Your task to perform on an android device: turn off location history Image 0: 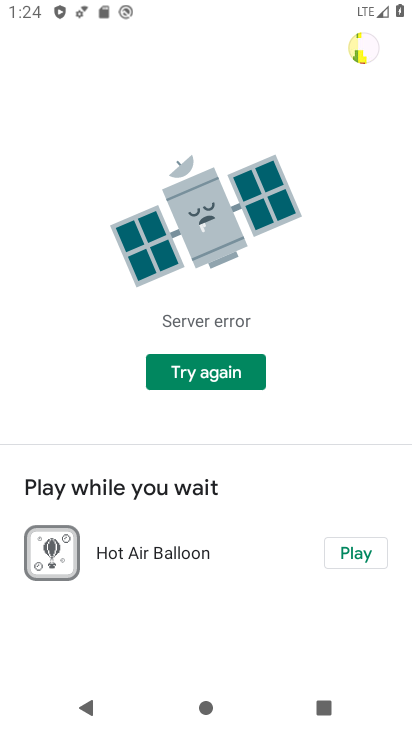
Step 0: press home button
Your task to perform on an android device: turn off location history Image 1: 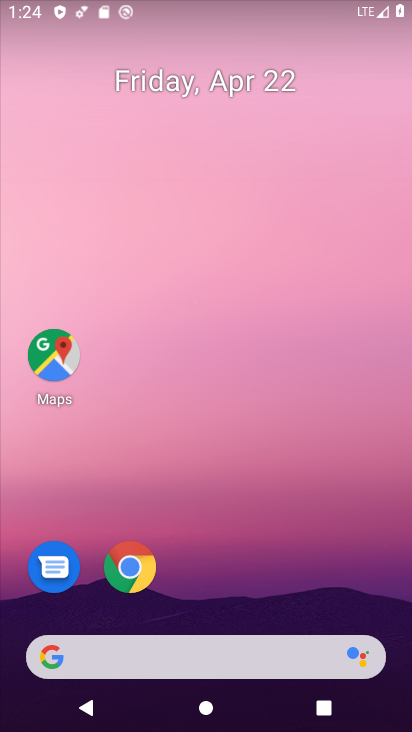
Step 1: drag from (322, 582) to (301, 150)
Your task to perform on an android device: turn off location history Image 2: 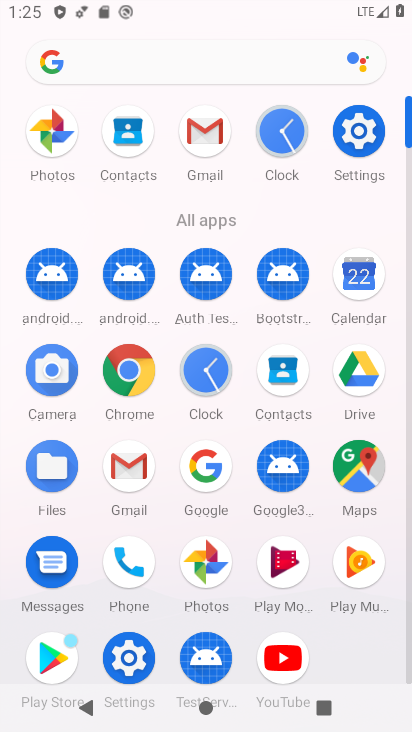
Step 2: click (130, 653)
Your task to perform on an android device: turn off location history Image 3: 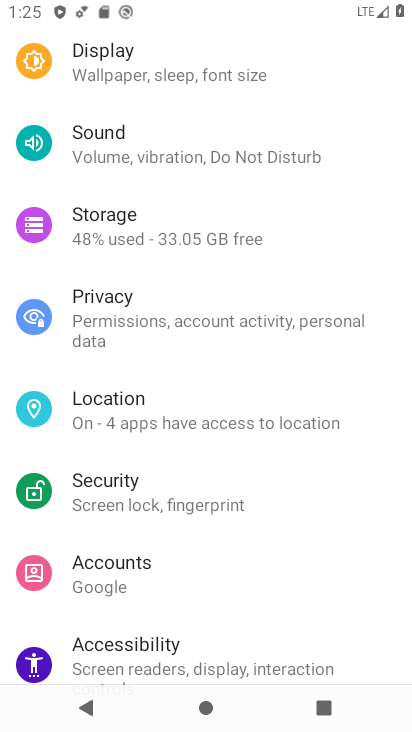
Step 3: click (149, 419)
Your task to perform on an android device: turn off location history Image 4: 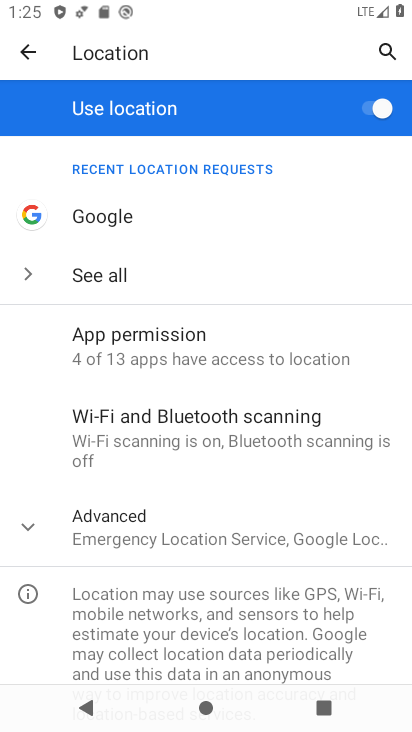
Step 4: click (68, 539)
Your task to perform on an android device: turn off location history Image 5: 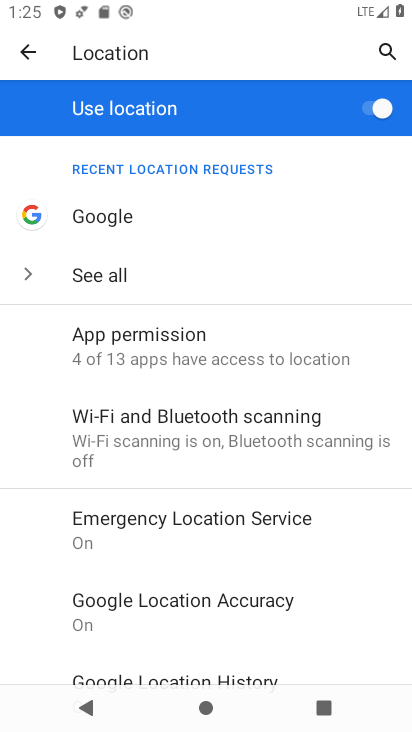
Step 5: drag from (168, 600) to (132, 372)
Your task to perform on an android device: turn off location history Image 6: 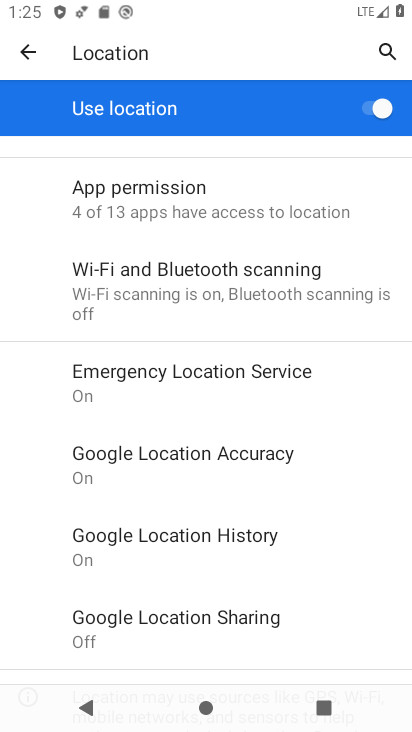
Step 6: click (155, 527)
Your task to perform on an android device: turn off location history Image 7: 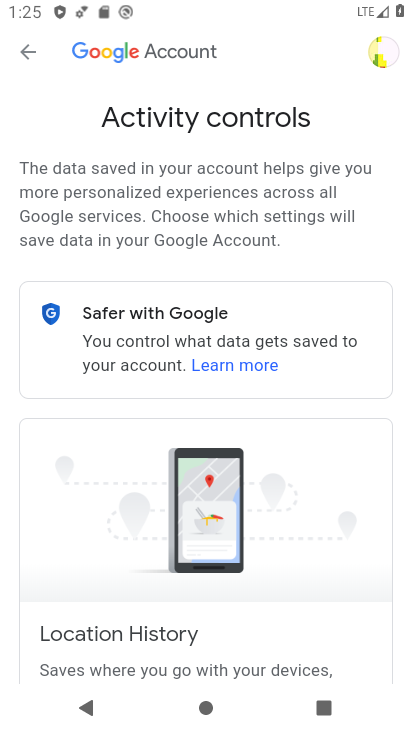
Step 7: drag from (292, 590) to (284, 306)
Your task to perform on an android device: turn off location history Image 8: 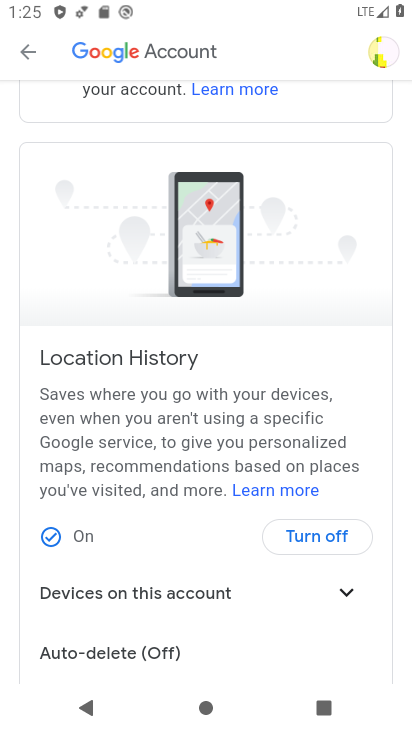
Step 8: click (308, 529)
Your task to perform on an android device: turn off location history Image 9: 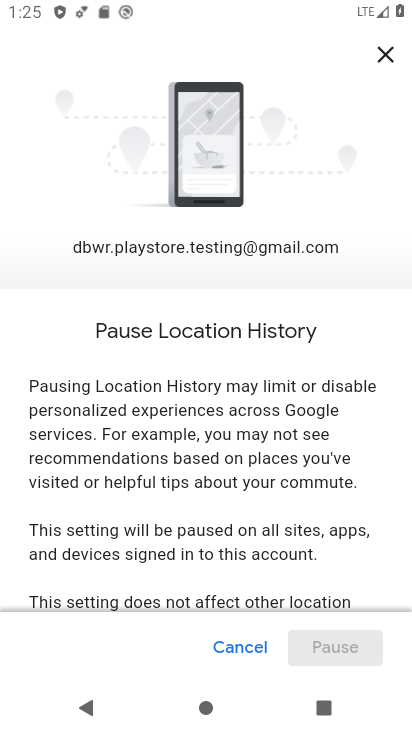
Step 9: drag from (312, 579) to (178, 82)
Your task to perform on an android device: turn off location history Image 10: 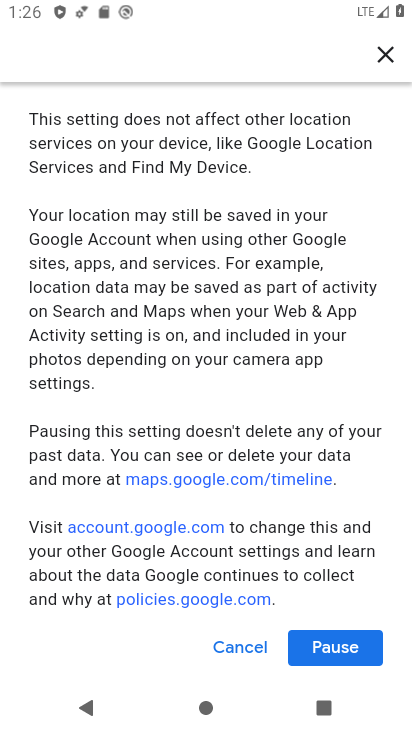
Step 10: click (334, 640)
Your task to perform on an android device: turn off location history Image 11: 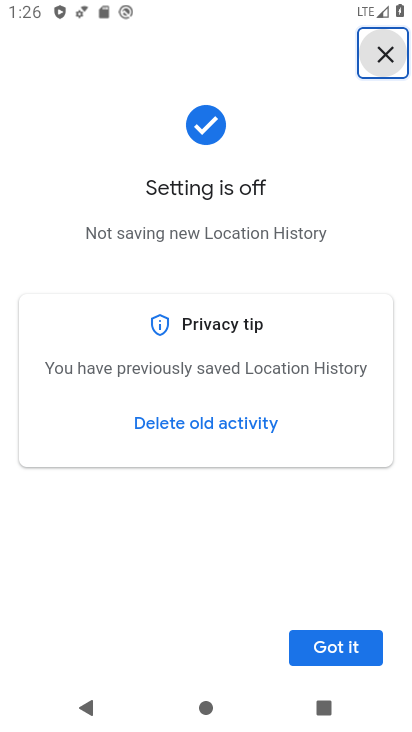
Step 11: click (333, 644)
Your task to perform on an android device: turn off location history Image 12: 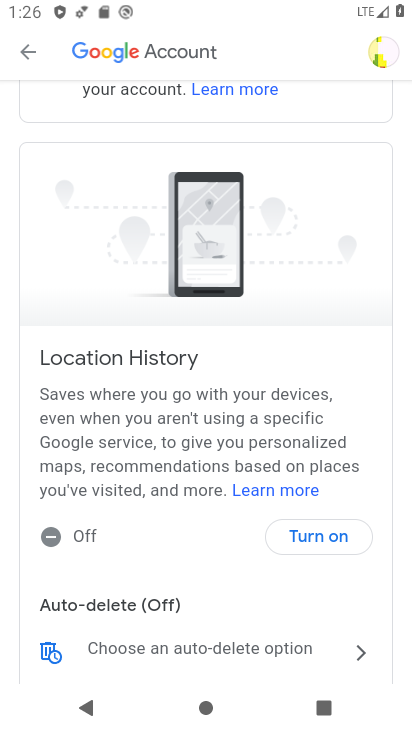
Step 12: task complete